Your task to perform on an android device: manage bookmarks in the chrome app Image 0: 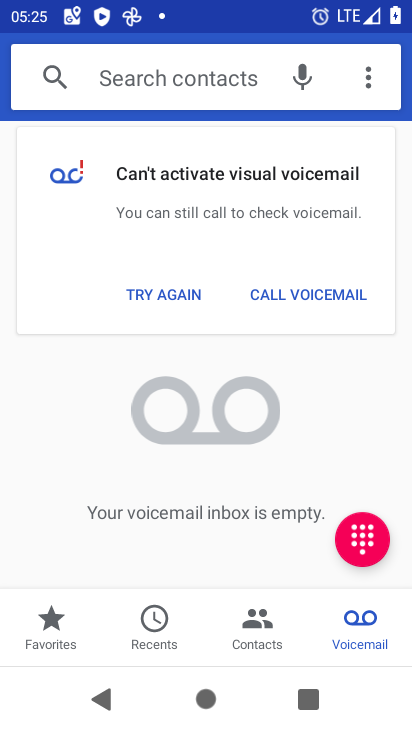
Step 0: press home button
Your task to perform on an android device: manage bookmarks in the chrome app Image 1: 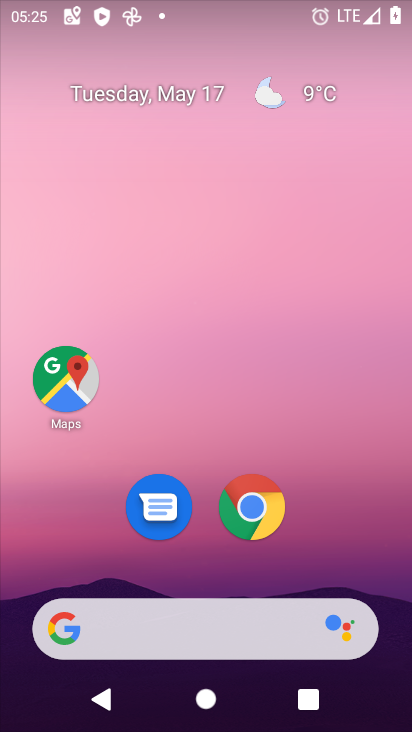
Step 1: drag from (335, 539) to (218, 55)
Your task to perform on an android device: manage bookmarks in the chrome app Image 2: 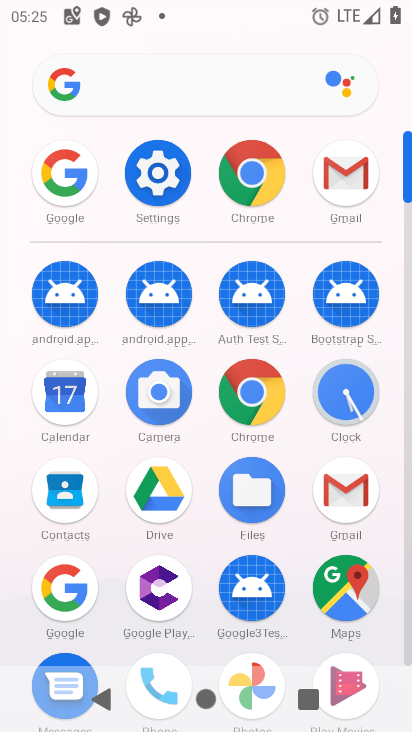
Step 2: click (263, 387)
Your task to perform on an android device: manage bookmarks in the chrome app Image 3: 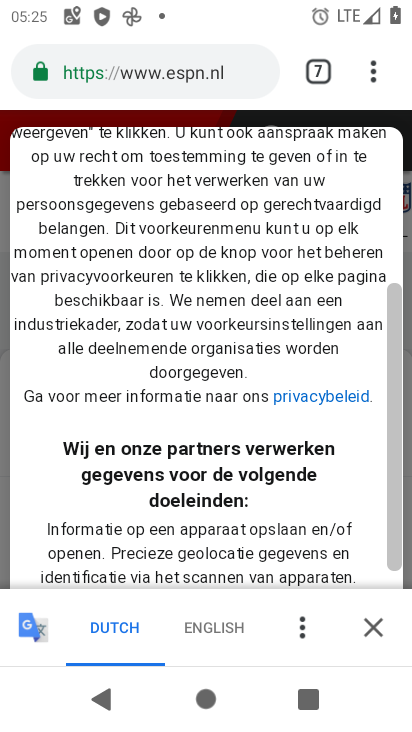
Step 3: click (368, 66)
Your task to perform on an android device: manage bookmarks in the chrome app Image 4: 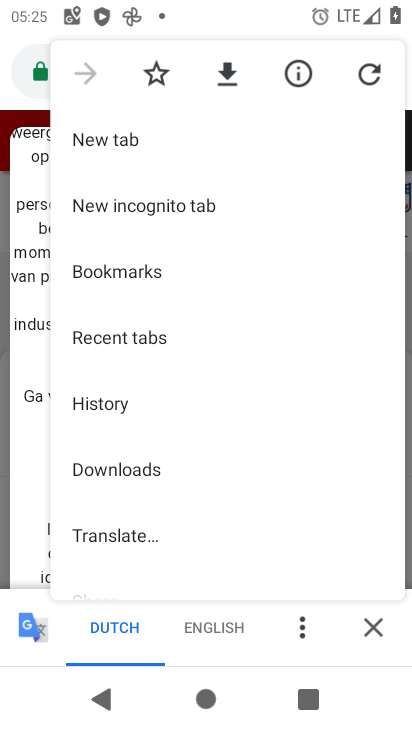
Step 4: click (168, 272)
Your task to perform on an android device: manage bookmarks in the chrome app Image 5: 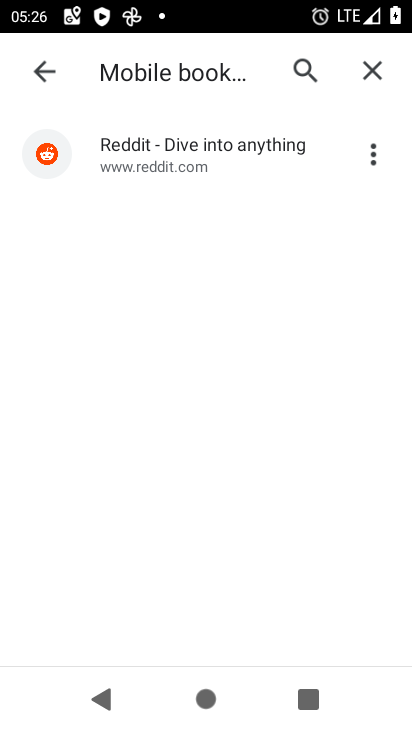
Step 5: click (376, 156)
Your task to perform on an android device: manage bookmarks in the chrome app Image 6: 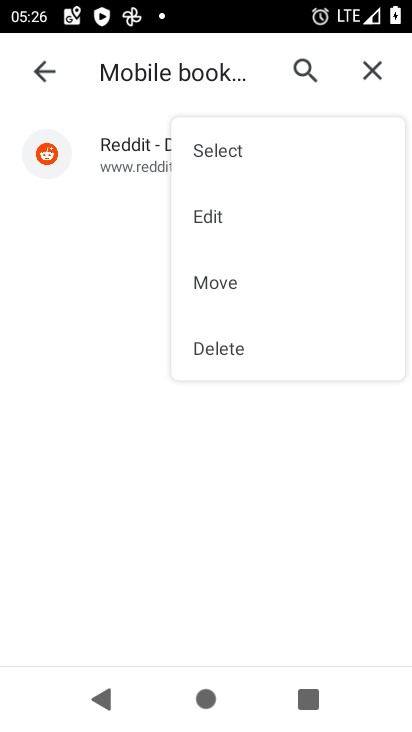
Step 6: click (224, 347)
Your task to perform on an android device: manage bookmarks in the chrome app Image 7: 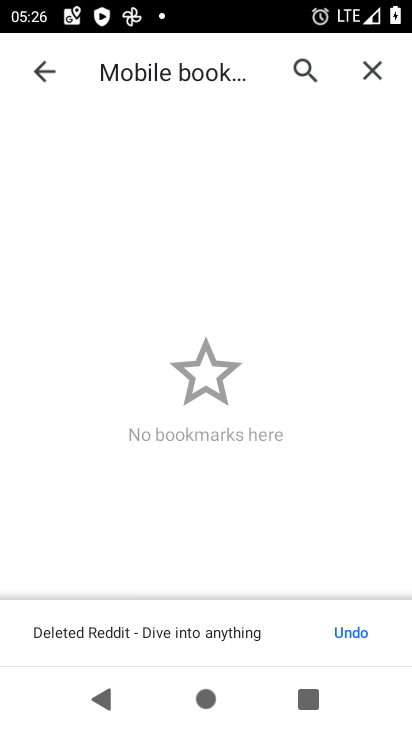
Step 7: task complete